Your task to perform on an android device: Search for a new bike on Walmart. Image 0: 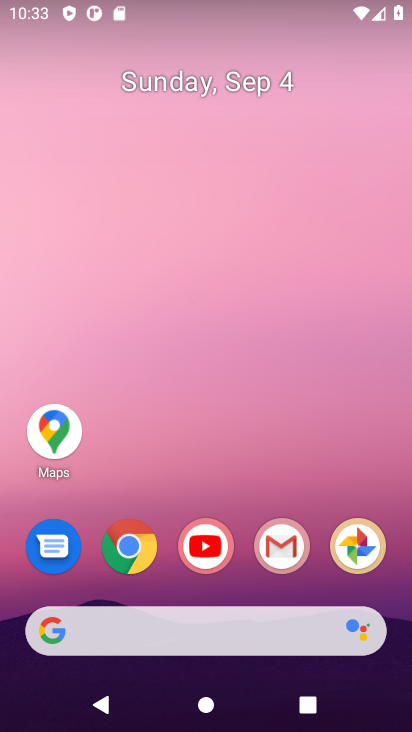
Step 0: click (130, 557)
Your task to perform on an android device: Search for a new bike on Walmart. Image 1: 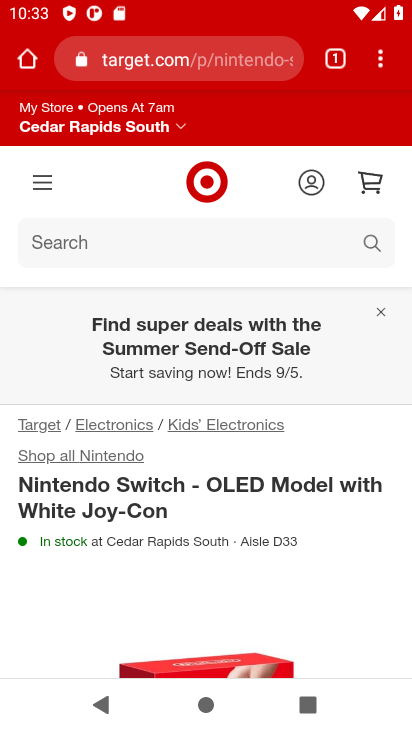
Step 1: click (174, 69)
Your task to perform on an android device: Search for a new bike on Walmart. Image 2: 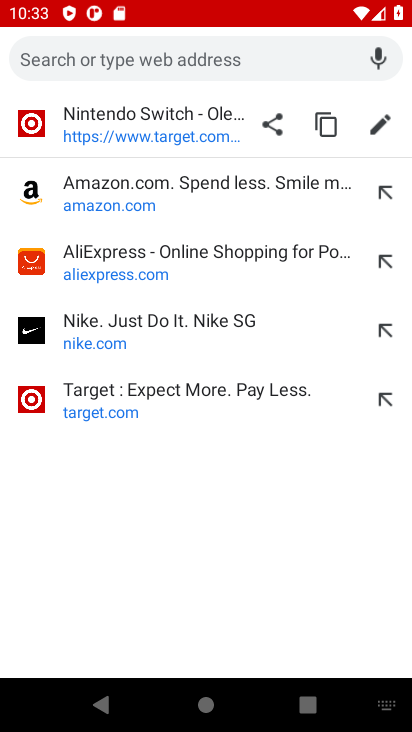
Step 2: type " Walmart."
Your task to perform on an android device: Search for a new bike on Walmart. Image 3: 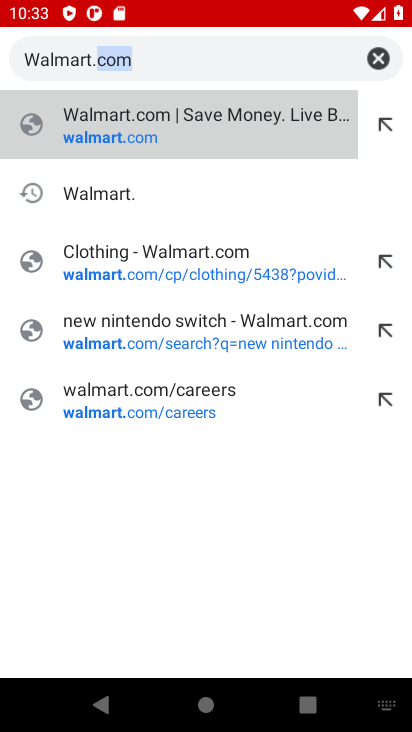
Step 3: click (105, 140)
Your task to perform on an android device: Search for a new bike on Walmart. Image 4: 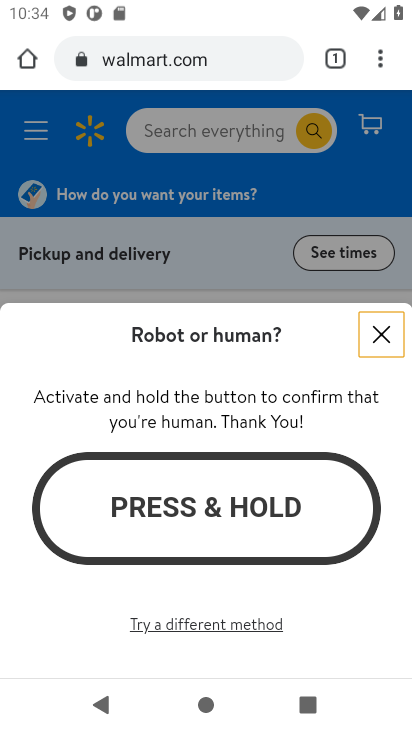
Step 4: click (207, 628)
Your task to perform on an android device: Search for a new bike on Walmart. Image 5: 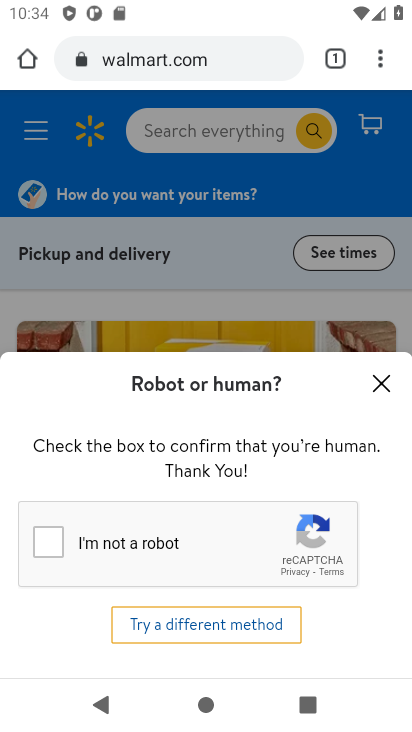
Step 5: drag from (391, 440) to (389, 314)
Your task to perform on an android device: Search for a new bike on Walmart. Image 6: 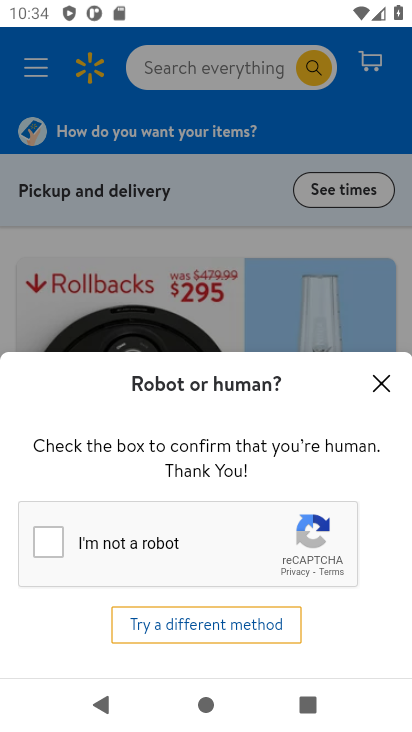
Step 6: click (378, 389)
Your task to perform on an android device: Search for a new bike on Walmart. Image 7: 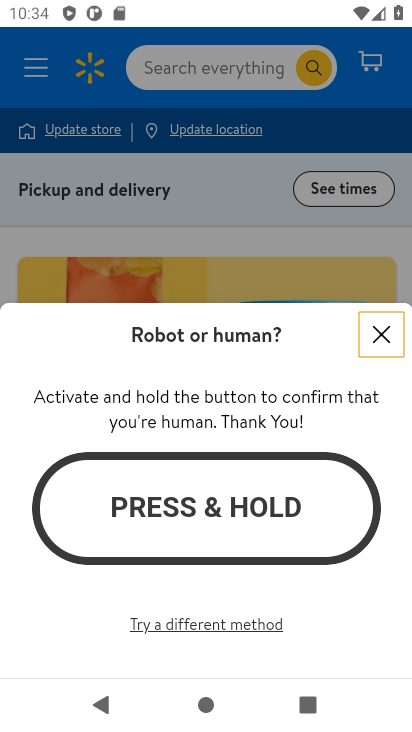
Step 7: click (183, 635)
Your task to perform on an android device: Search for a new bike on Walmart. Image 8: 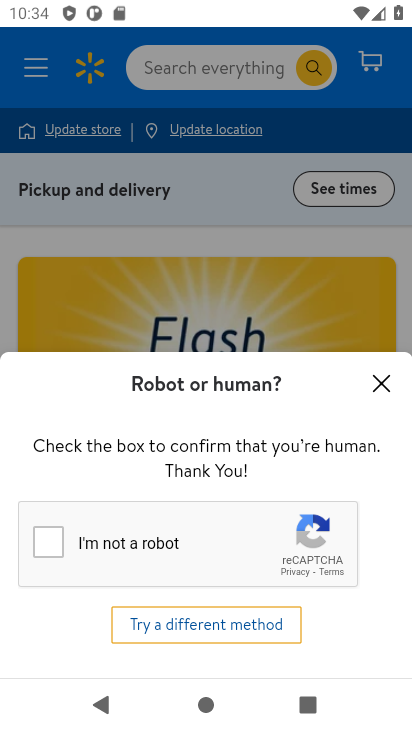
Step 8: click (42, 546)
Your task to perform on an android device: Search for a new bike on Walmart. Image 9: 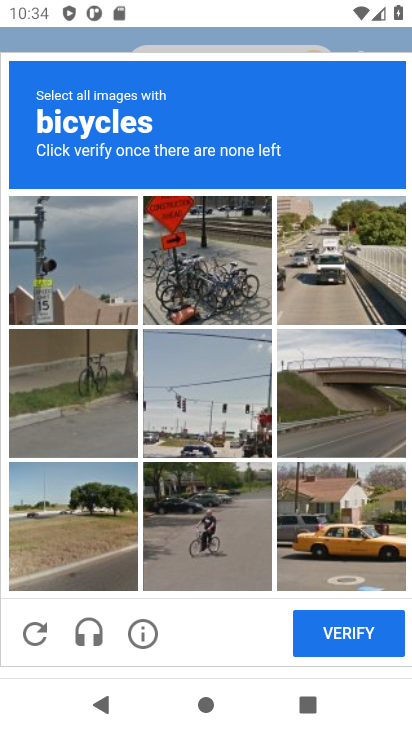
Step 9: click (183, 254)
Your task to perform on an android device: Search for a new bike on Walmart. Image 10: 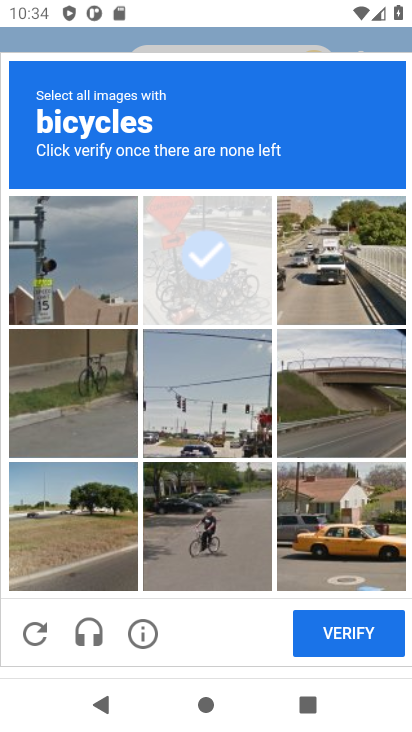
Step 10: click (204, 549)
Your task to perform on an android device: Search for a new bike on Walmart. Image 11: 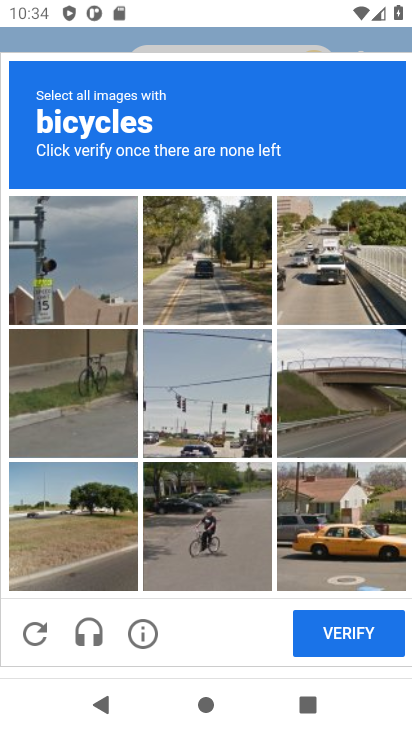
Step 11: click (71, 415)
Your task to perform on an android device: Search for a new bike on Walmart. Image 12: 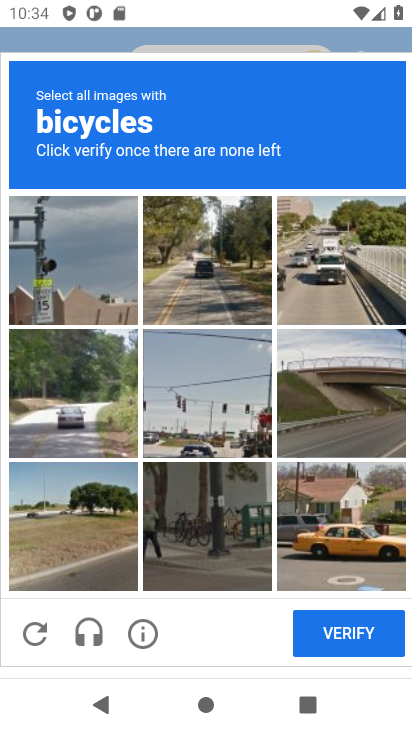
Step 12: click (348, 632)
Your task to perform on an android device: Search for a new bike on Walmart. Image 13: 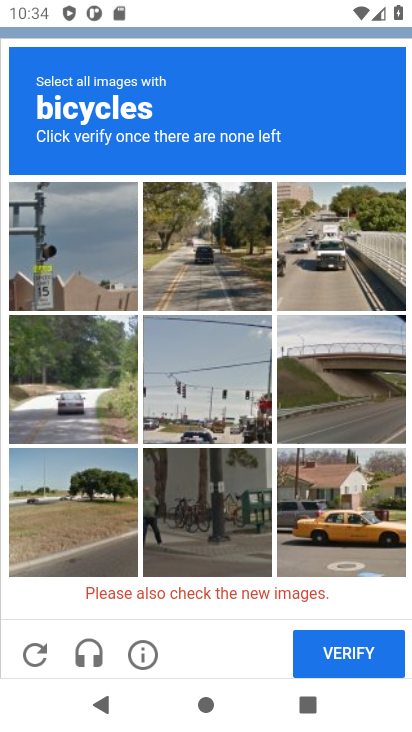
Step 13: click (178, 538)
Your task to perform on an android device: Search for a new bike on Walmart. Image 14: 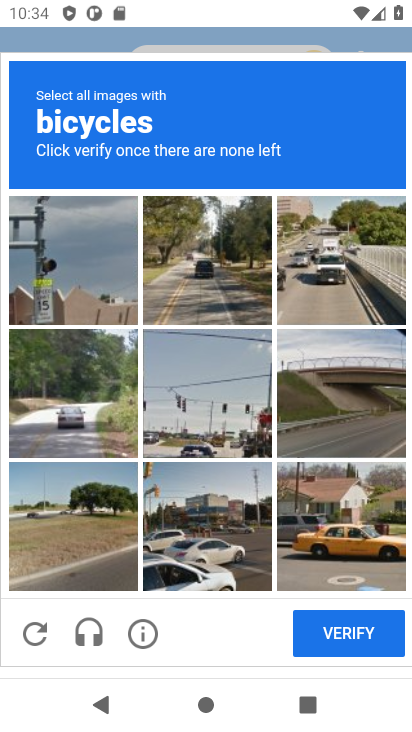
Step 14: drag from (222, 551) to (212, 340)
Your task to perform on an android device: Search for a new bike on Walmart. Image 15: 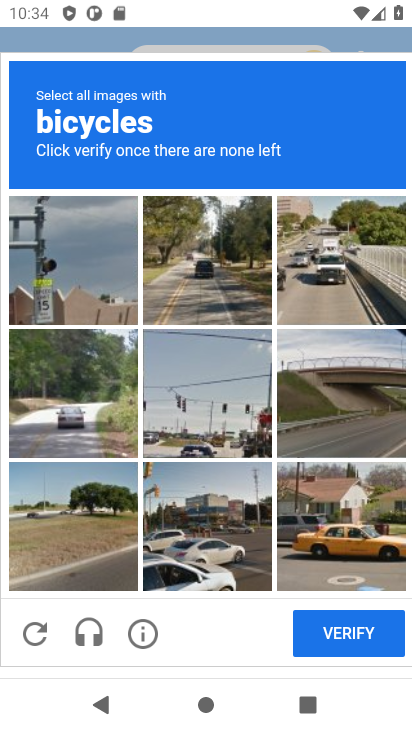
Step 15: click (323, 643)
Your task to perform on an android device: Search for a new bike on Walmart. Image 16: 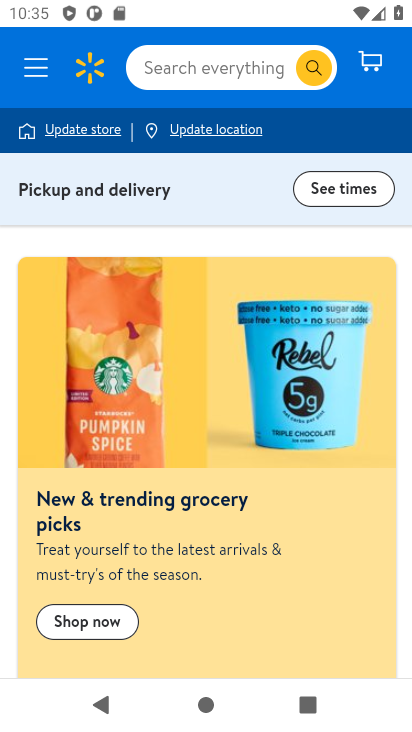
Step 16: click (193, 65)
Your task to perform on an android device: Search for a new bike on Walmart. Image 17: 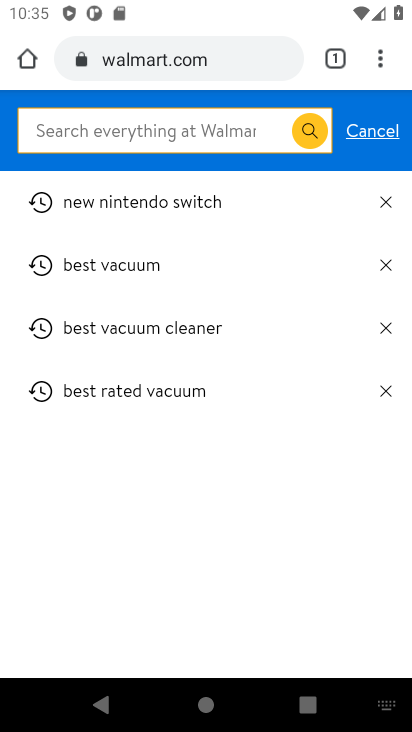
Step 17: type "new bike"
Your task to perform on an android device: Search for a new bike on Walmart. Image 18: 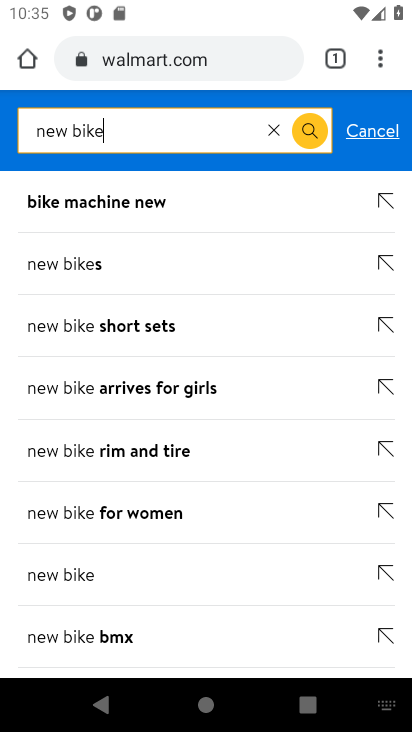
Step 18: click (80, 273)
Your task to perform on an android device: Search for a new bike on Walmart. Image 19: 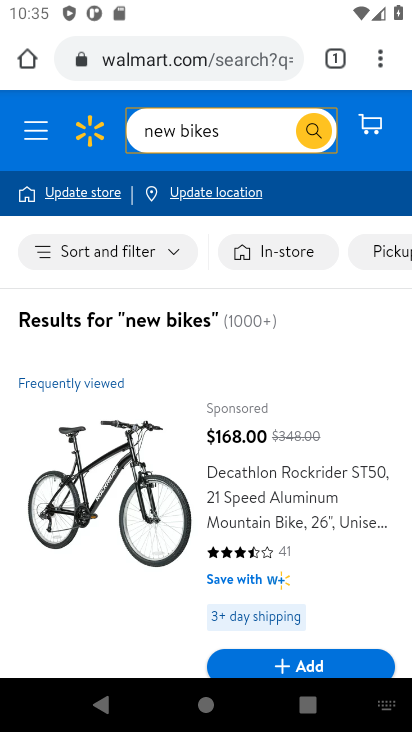
Step 19: task complete